Your task to perform on an android device: turn off wifi Image 0: 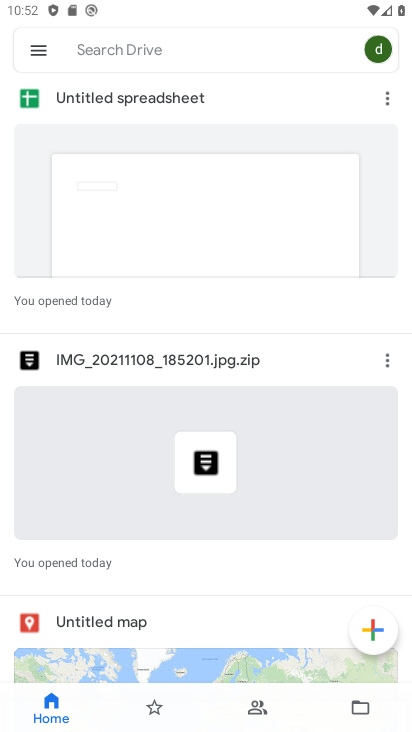
Step 0: press home button
Your task to perform on an android device: turn off wifi Image 1: 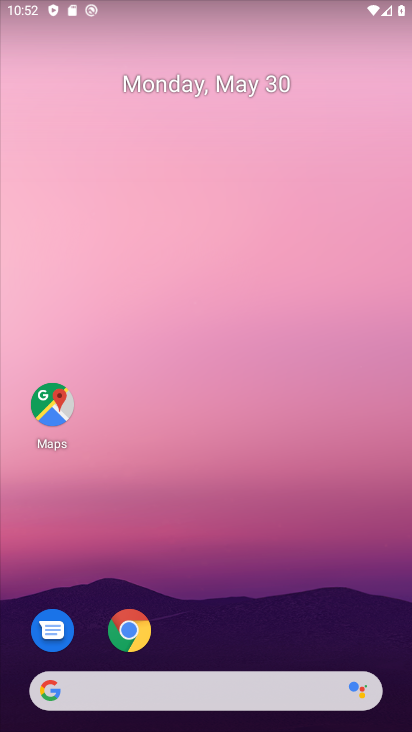
Step 1: drag from (194, 606) to (247, 169)
Your task to perform on an android device: turn off wifi Image 2: 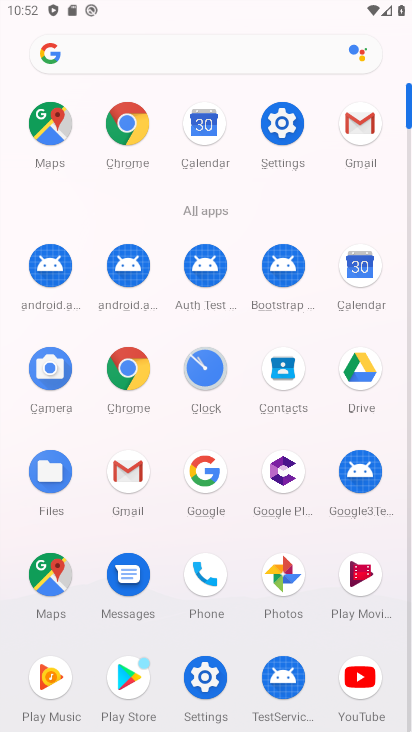
Step 2: click (284, 122)
Your task to perform on an android device: turn off wifi Image 3: 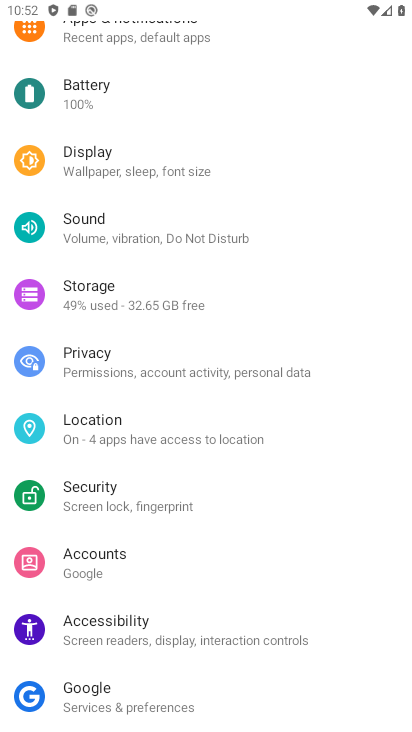
Step 3: drag from (155, 140) to (136, 466)
Your task to perform on an android device: turn off wifi Image 4: 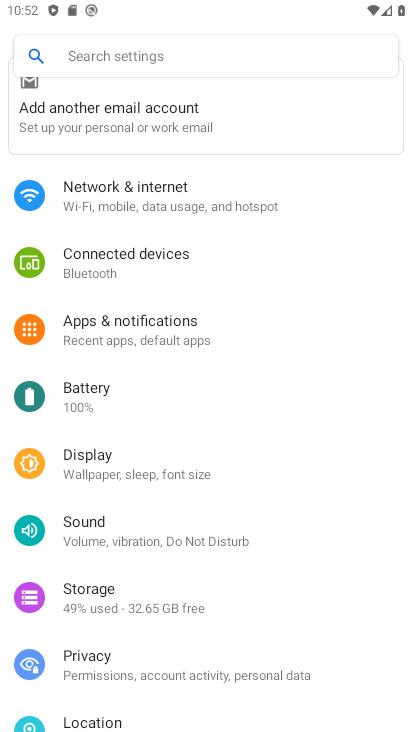
Step 4: click (160, 210)
Your task to perform on an android device: turn off wifi Image 5: 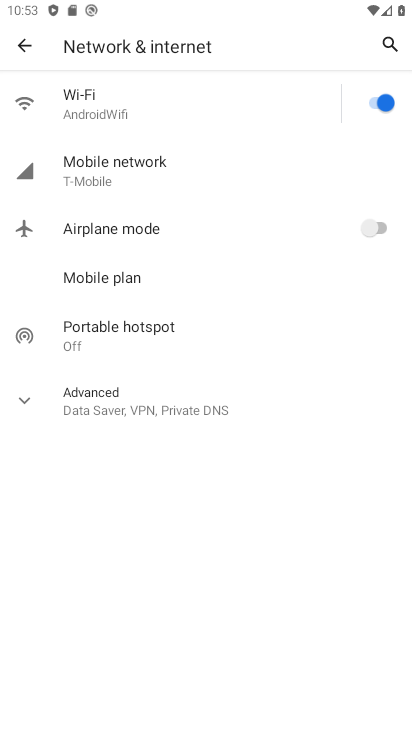
Step 5: click (384, 110)
Your task to perform on an android device: turn off wifi Image 6: 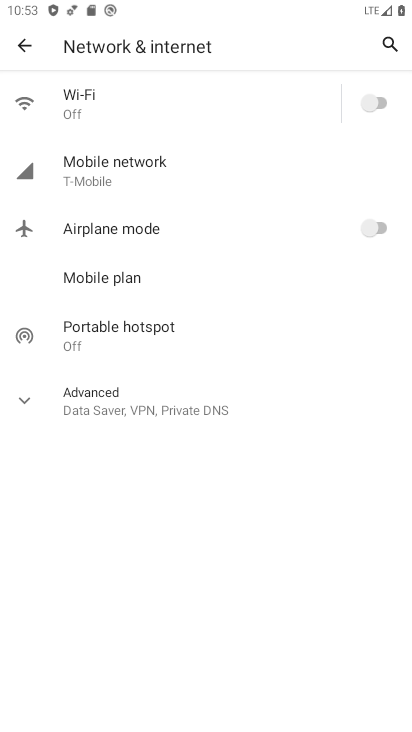
Step 6: task complete